Your task to perform on an android device: Open the web browser Image 0: 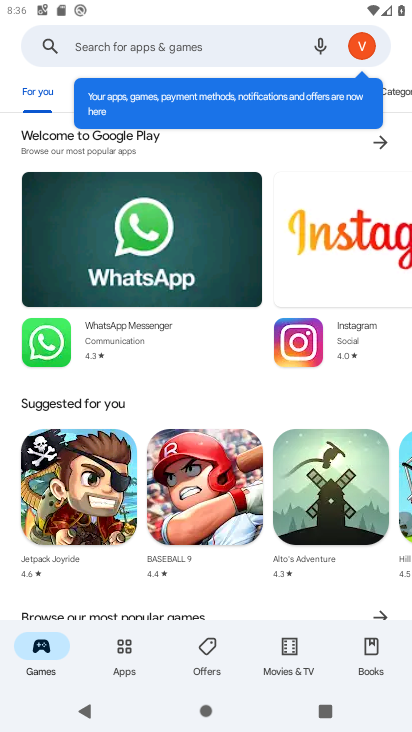
Step 0: press home button
Your task to perform on an android device: Open the web browser Image 1: 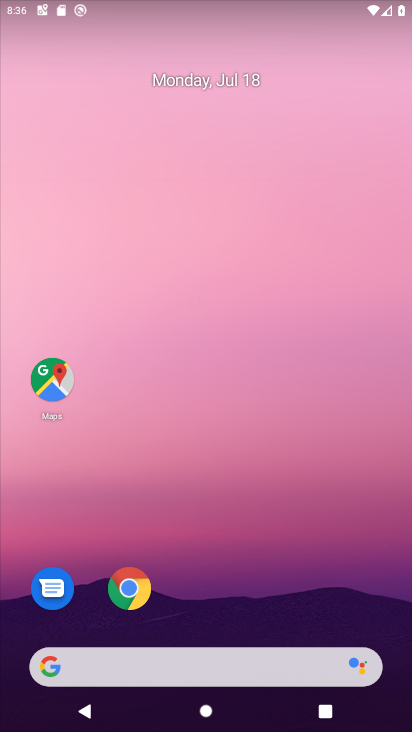
Step 1: drag from (242, 611) to (311, 77)
Your task to perform on an android device: Open the web browser Image 2: 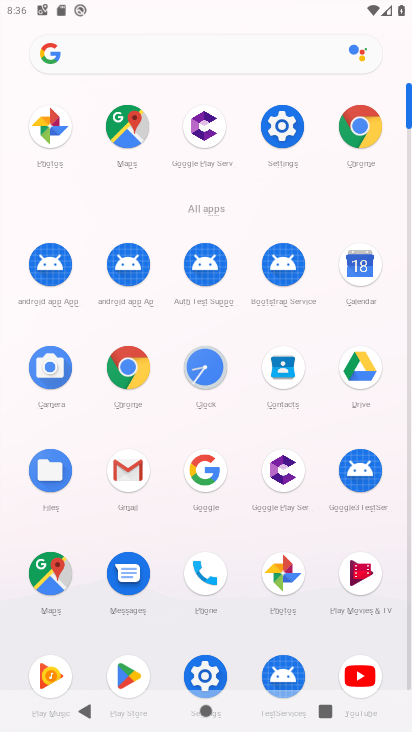
Step 2: click (205, 487)
Your task to perform on an android device: Open the web browser Image 3: 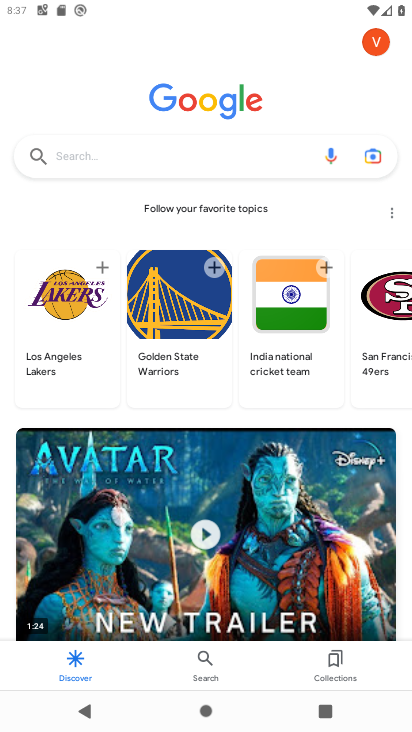
Step 3: task complete